Your task to perform on an android device: show emergency info Image 0: 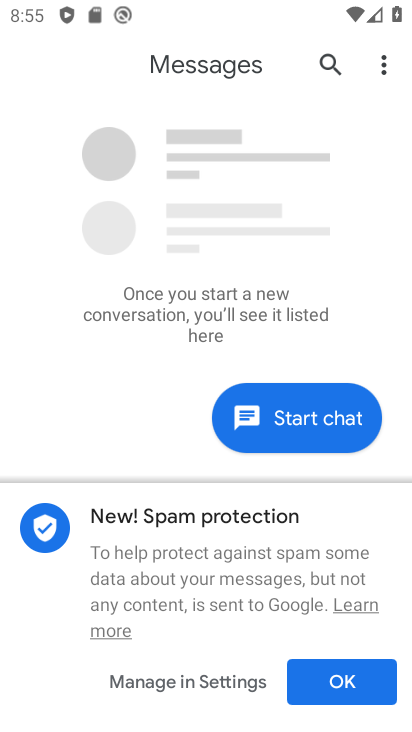
Step 0: press home button
Your task to perform on an android device: show emergency info Image 1: 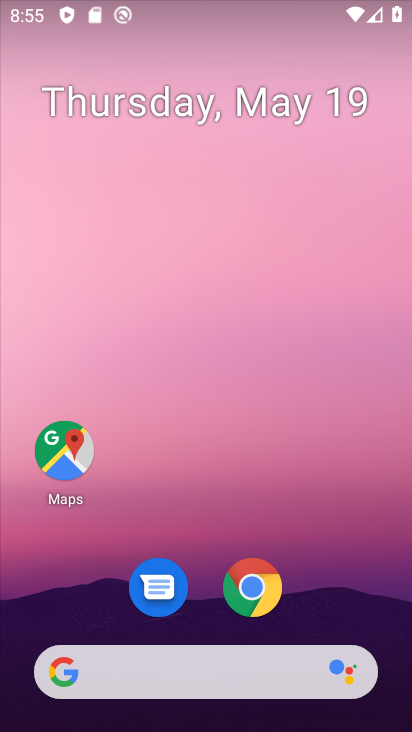
Step 1: drag from (318, 594) to (272, 122)
Your task to perform on an android device: show emergency info Image 2: 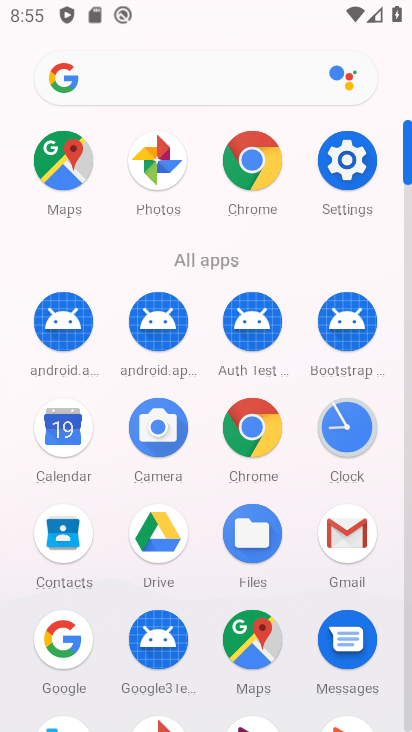
Step 2: click (374, 153)
Your task to perform on an android device: show emergency info Image 3: 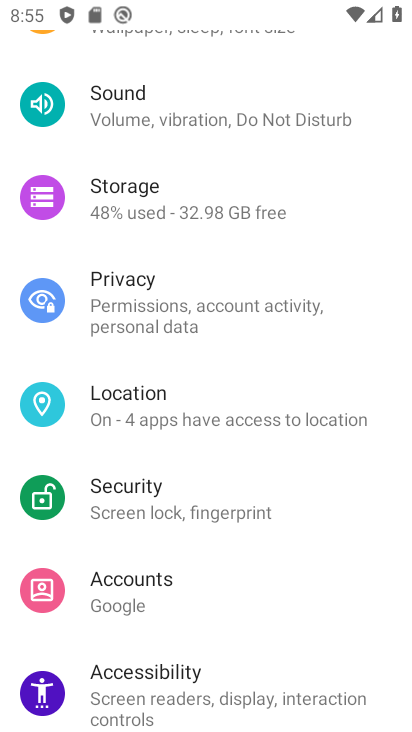
Step 3: drag from (212, 703) to (205, 24)
Your task to perform on an android device: show emergency info Image 4: 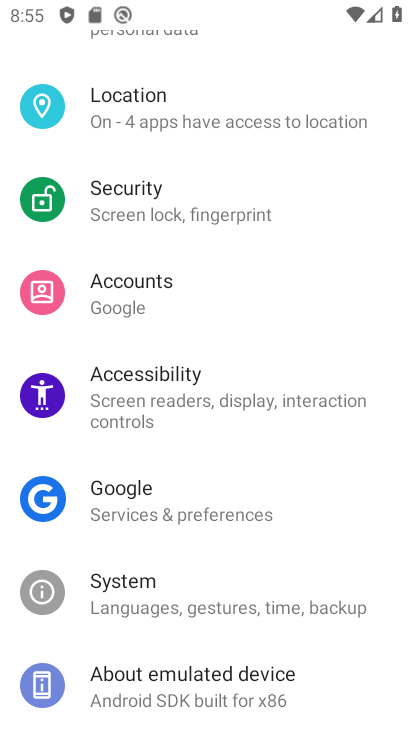
Step 4: click (241, 667)
Your task to perform on an android device: show emergency info Image 5: 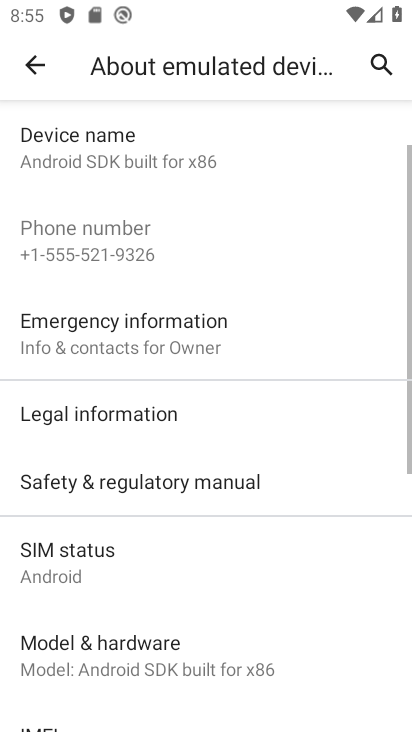
Step 5: click (142, 346)
Your task to perform on an android device: show emergency info Image 6: 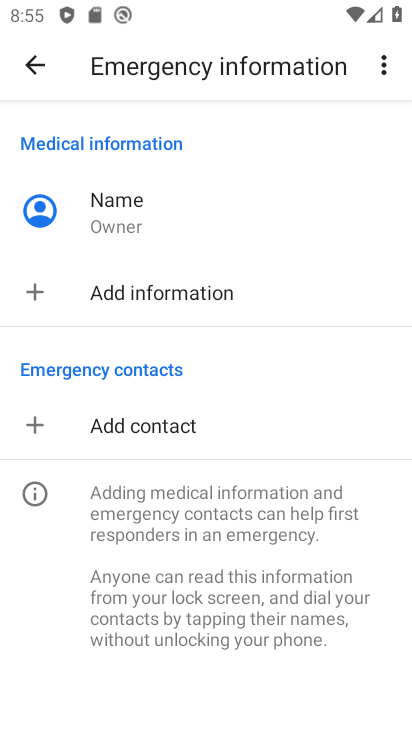
Step 6: task complete